Your task to perform on an android device: Add bose soundsport free to the cart on newegg.com, then select checkout. Image 0: 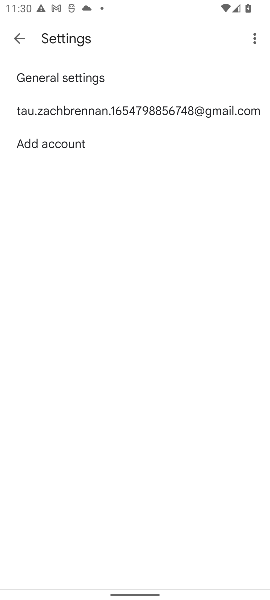
Step 0: press home button
Your task to perform on an android device: Add bose soundsport free to the cart on newegg.com, then select checkout. Image 1: 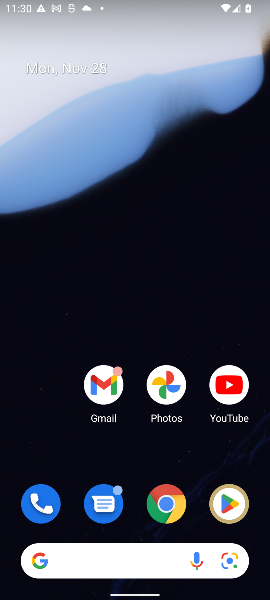
Step 1: click (164, 503)
Your task to perform on an android device: Add bose soundsport free to the cart on newegg.com, then select checkout. Image 2: 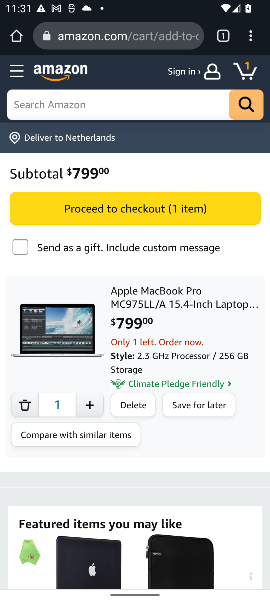
Step 2: click (72, 39)
Your task to perform on an android device: Add bose soundsport free to the cart on newegg.com, then select checkout. Image 3: 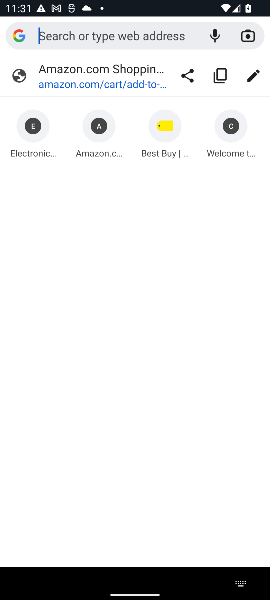
Step 3: type "newegg.com"
Your task to perform on an android device: Add bose soundsport free to the cart on newegg.com, then select checkout. Image 4: 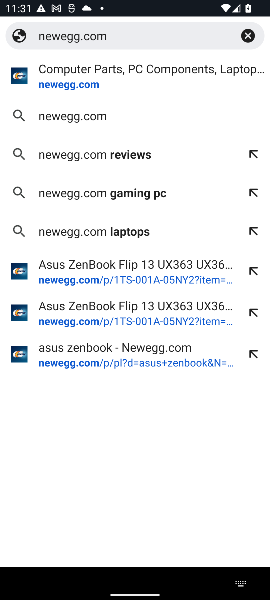
Step 4: click (55, 83)
Your task to perform on an android device: Add bose soundsport free to the cart on newegg.com, then select checkout. Image 5: 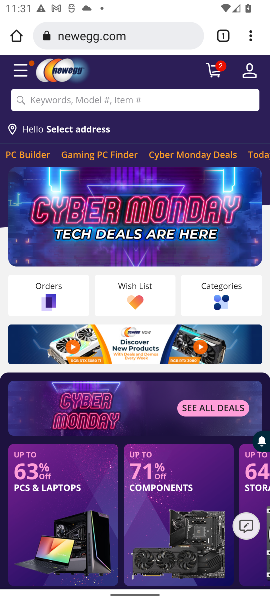
Step 5: click (46, 96)
Your task to perform on an android device: Add bose soundsport free to the cart on newegg.com, then select checkout. Image 6: 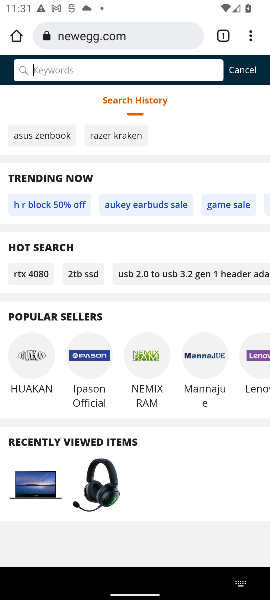
Step 6: type "bose soundsport free"
Your task to perform on an android device: Add bose soundsport free to the cart on newegg.com, then select checkout. Image 7: 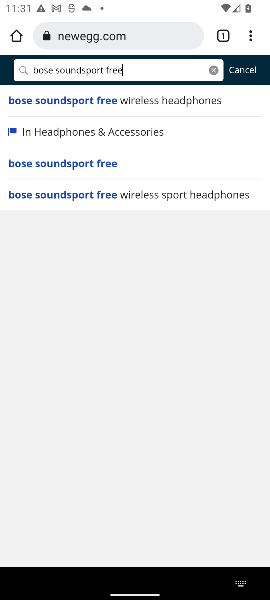
Step 7: click (48, 165)
Your task to perform on an android device: Add bose soundsport free to the cart on newegg.com, then select checkout. Image 8: 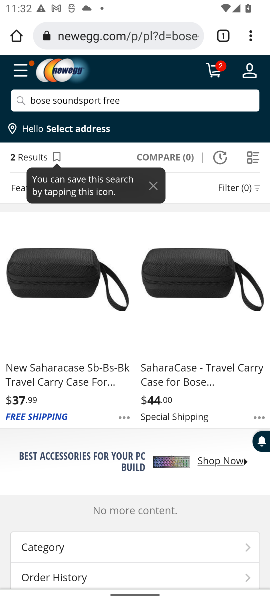
Step 8: drag from (101, 425) to (111, 310)
Your task to perform on an android device: Add bose soundsport free to the cart on newegg.com, then select checkout. Image 9: 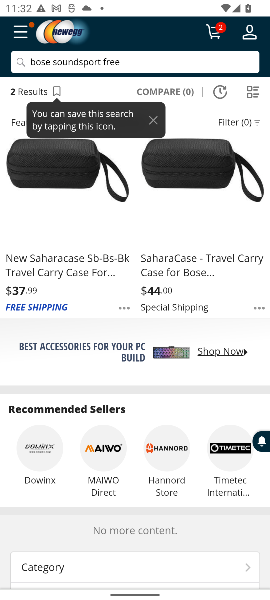
Step 9: click (221, 190)
Your task to perform on an android device: Add bose soundsport free to the cart on newegg.com, then select checkout. Image 10: 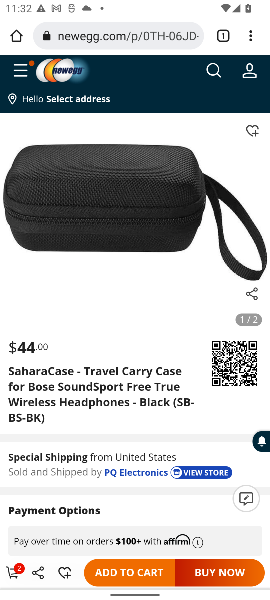
Step 10: click (135, 574)
Your task to perform on an android device: Add bose soundsport free to the cart on newegg.com, then select checkout. Image 11: 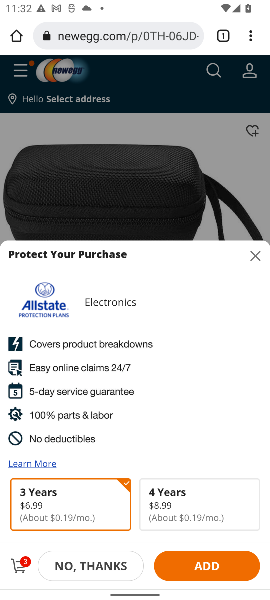
Step 11: click (22, 564)
Your task to perform on an android device: Add bose soundsport free to the cart on newegg.com, then select checkout. Image 12: 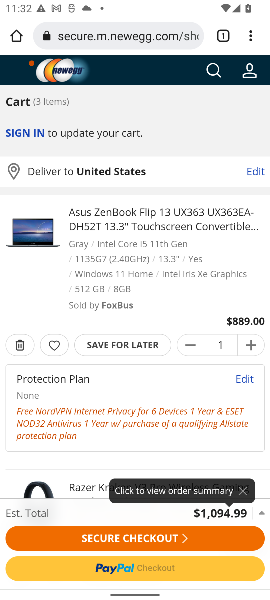
Step 12: click (112, 537)
Your task to perform on an android device: Add bose soundsport free to the cart on newegg.com, then select checkout. Image 13: 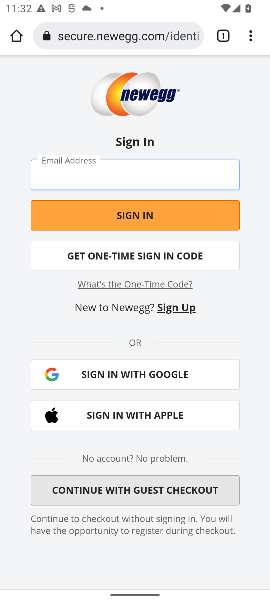
Step 13: task complete